Your task to perform on an android device: find photos in the google photos app Image 0: 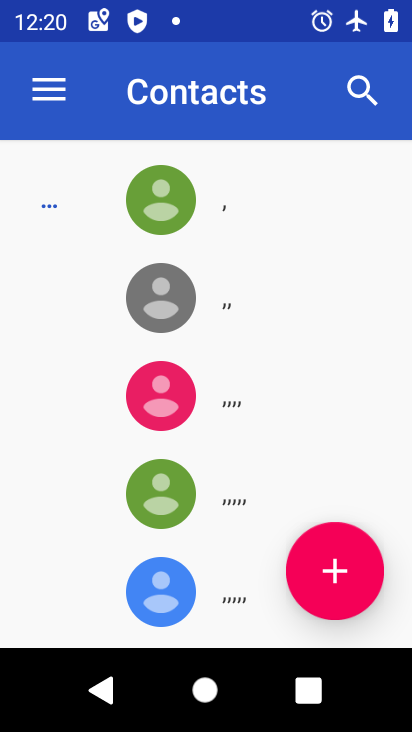
Step 0: press home button
Your task to perform on an android device: find photos in the google photos app Image 1: 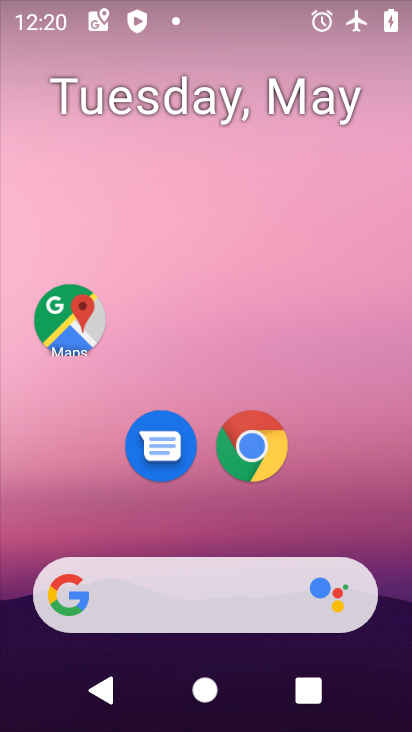
Step 1: drag from (262, 545) to (256, 185)
Your task to perform on an android device: find photos in the google photos app Image 2: 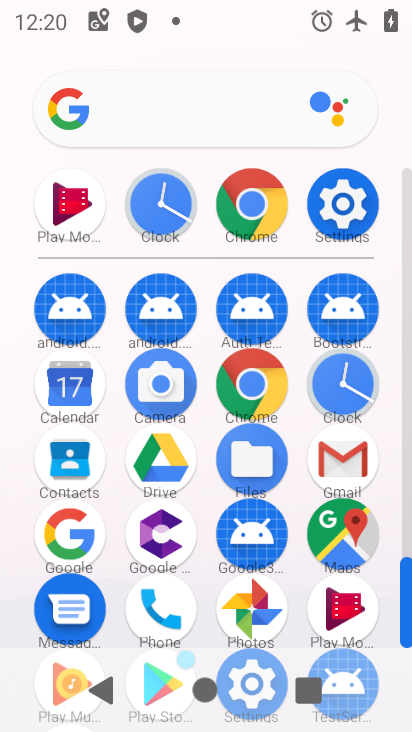
Step 2: click (242, 609)
Your task to perform on an android device: find photos in the google photos app Image 3: 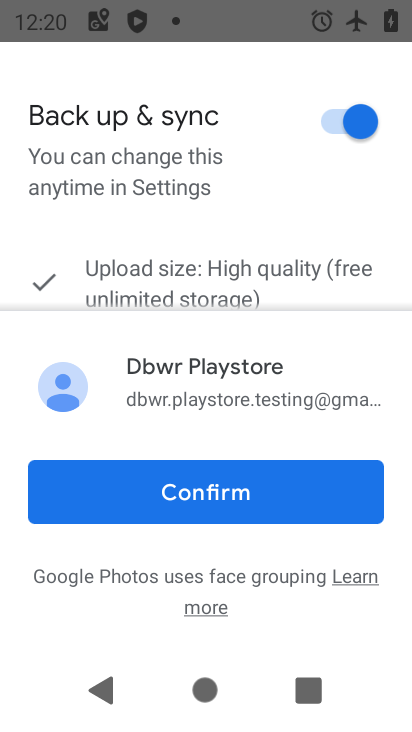
Step 3: click (171, 483)
Your task to perform on an android device: find photos in the google photos app Image 4: 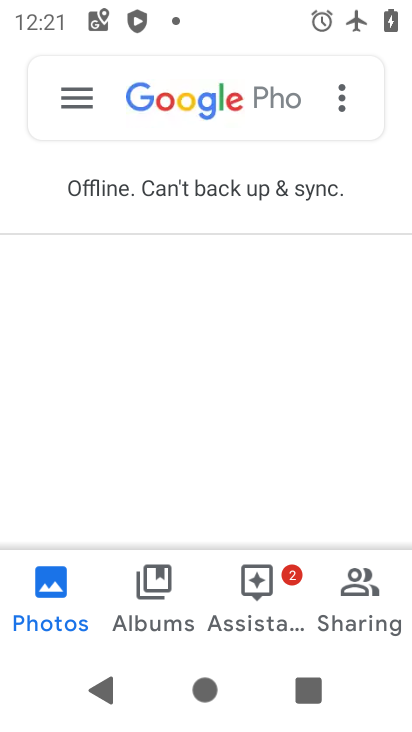
Step 4: click (151, 574)
Your task to perform on an android device: find photos in the google photos app Image 5: 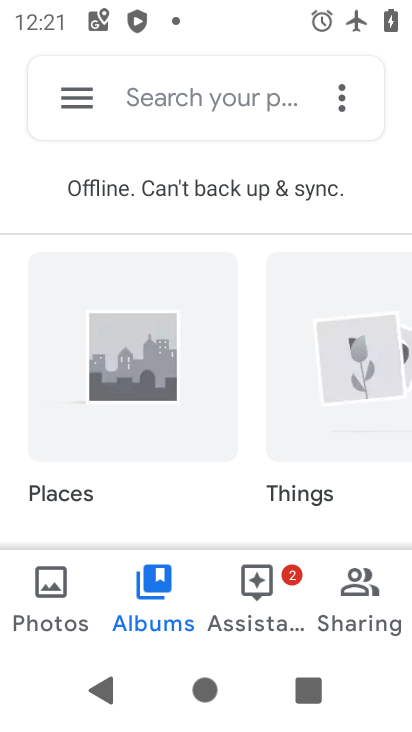
Step 5: click (51, 580)
Your task to perform on an android device: find photos in the google photos app Image 6: 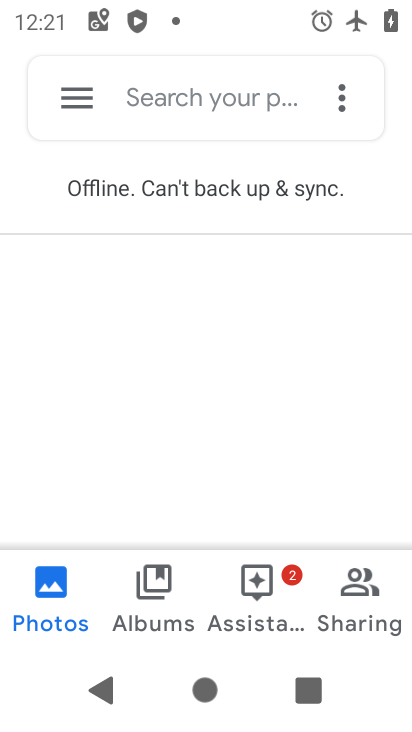
Step 6: click (140, 597)
Your task to perform on an android device: find photos in the google photos app Image 7: 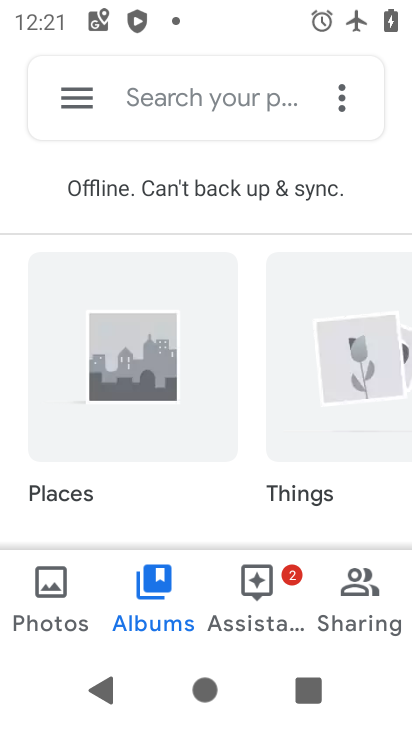
Step 7: task complete